Your task to perform on an android device: open device folders in google photos Image 0: 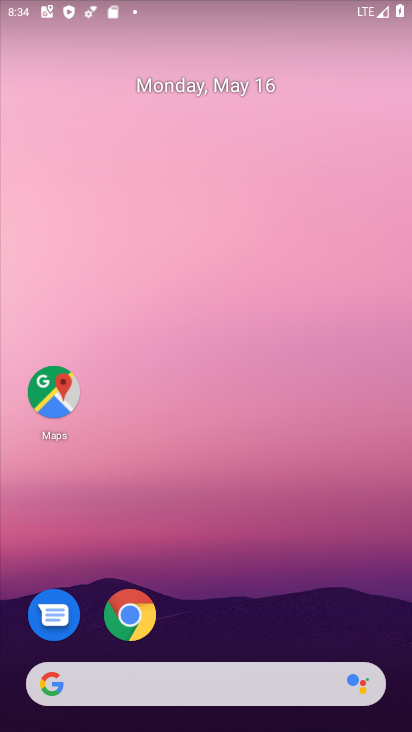
Step 0: drag from (247, 638) to (250, 241)
Your task to perform on an android device: open device folders in google photos Image 1: 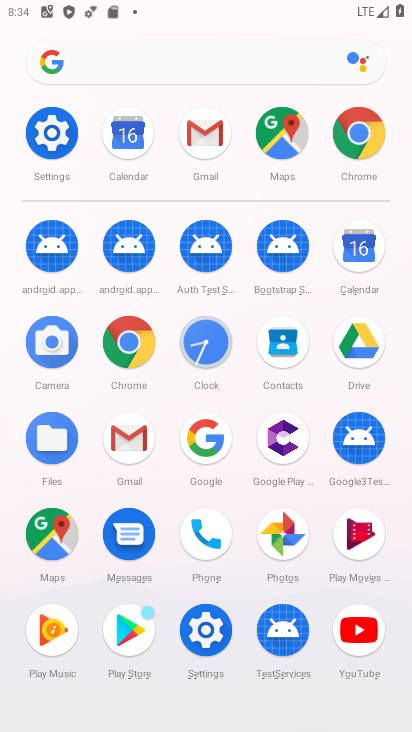
Step 1: click (278, 550)
Your task to perform on an android device: open device folders in google photos Image 2: 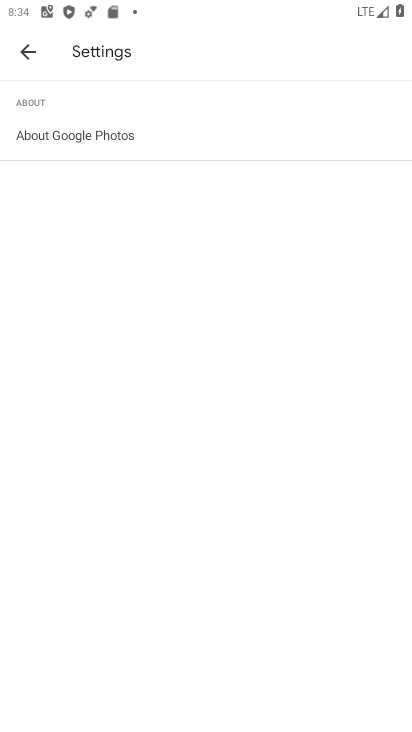
Step 2: click (23, 48)
Your task to perform on an android device: open device folders in google photos Image 3: 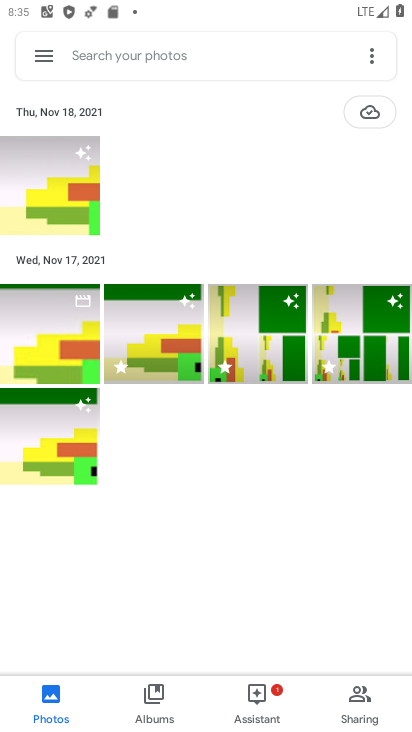
Step 3: click (44, 48)
Your task to perform on an android device: open device folders in google photos Image 4: 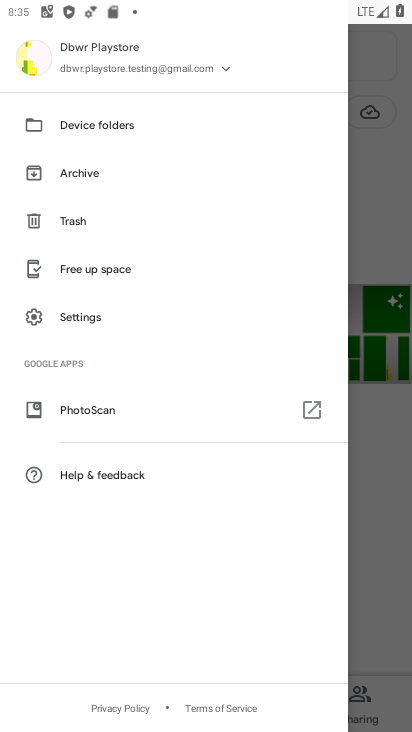
Step 4: click (120, 127)
Your task to perform on an android device: open device folders in google photos Image 5: 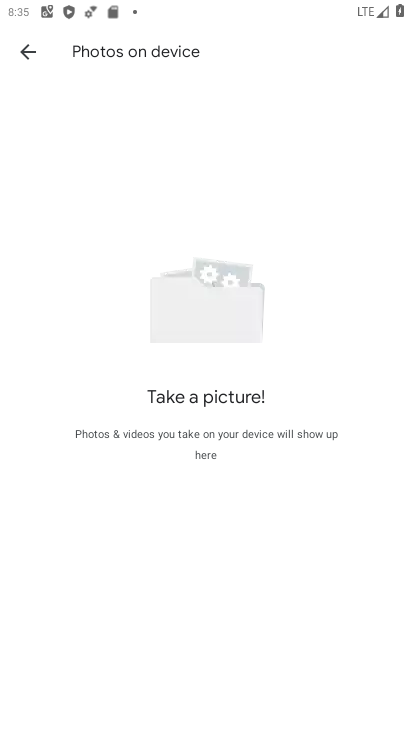
Step 5: task complete